Your task to perform on an android device: toggle translation in the chrome app Image 0: 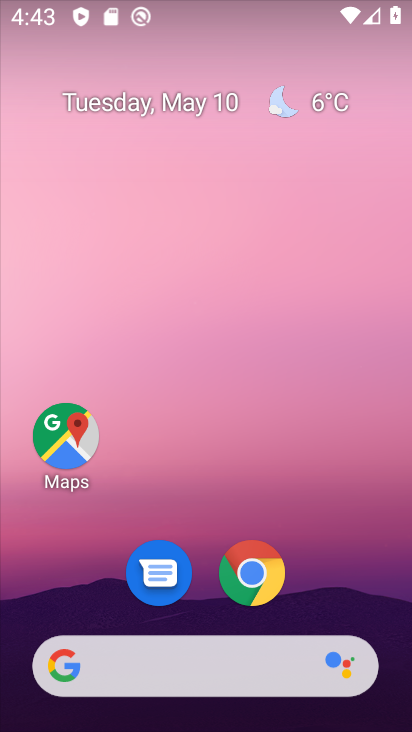
Step 0: click (260, 569)
Your task to perform on an android device: toggle translation in the chrome app Image 1: 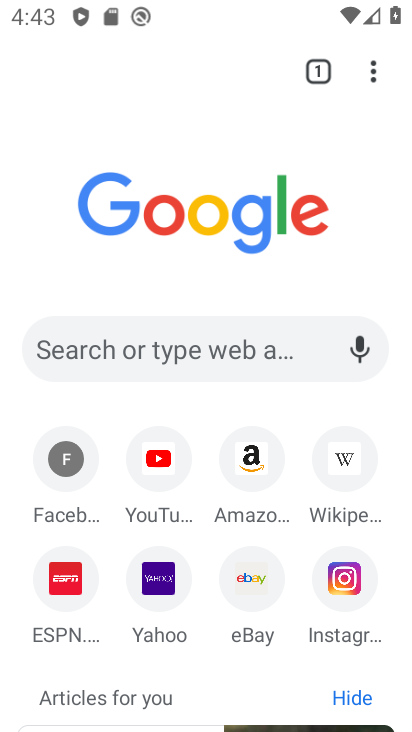
Step 1: drag from (379, 73) to (236, 606)
Your task to perform on an android device: toggle translation in the chrome app Image 2: 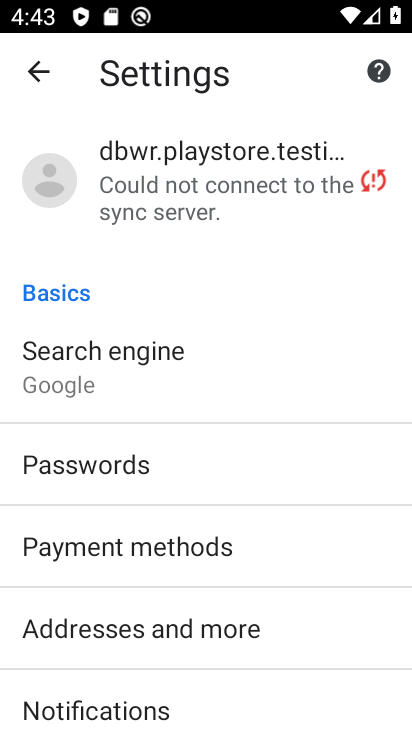
Step 2: drag from (214, 677) to (261, 414)
Your task to perform on an android device: toggle translation in the chrome app Image 3: 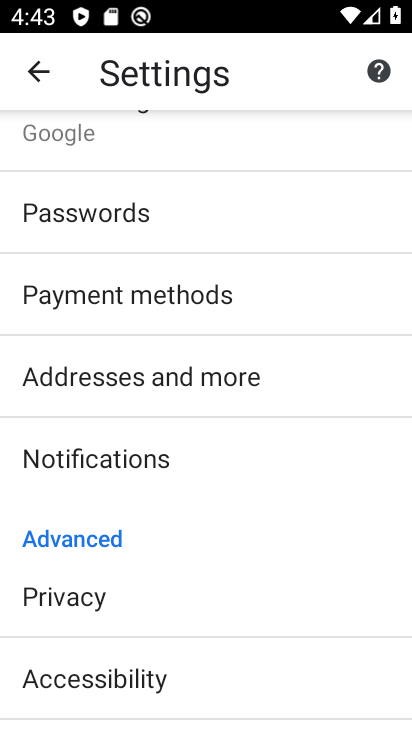
Step 3: drag from (175, 680) to (290, 302)
Your task to perform on an android device: toggle translation in the chrome app Image 4: 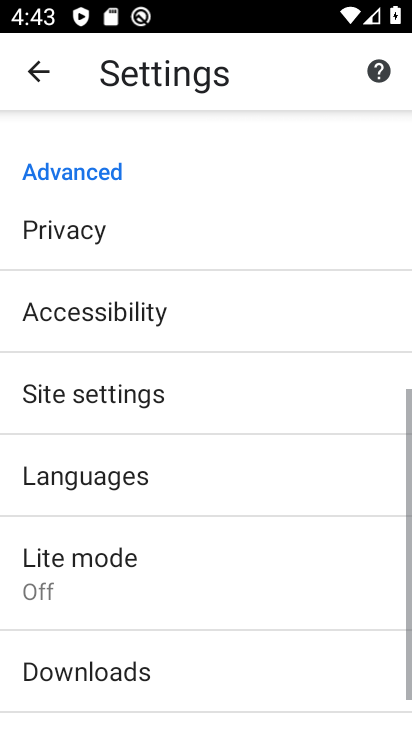
Step 4: click (158, 477)
Your task to perform on an android device: toggle translation in the chrome app Image 5: 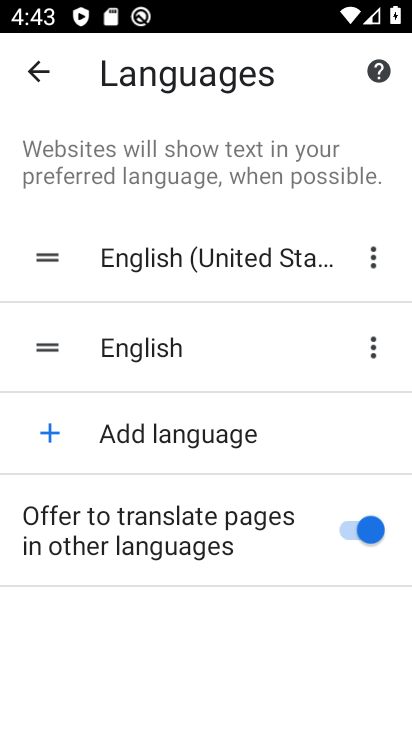
Step 5: click (358, 528)
Your task to perform on an android device: toggle translation in the chrome app Image 6: 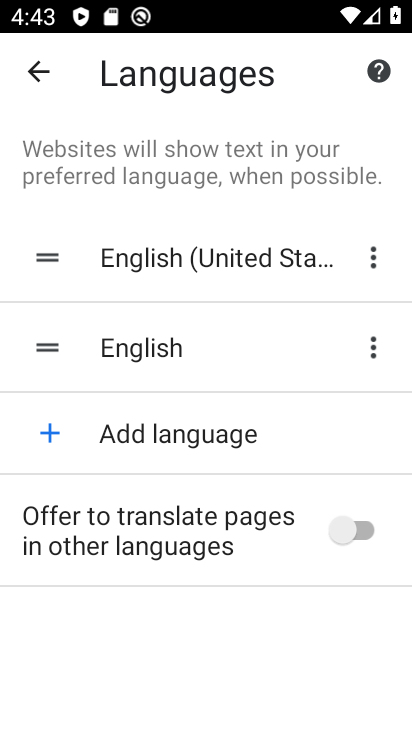
Step 6: task complete